Your task to perform on an android device: turn off improve location accuracy Image 0: 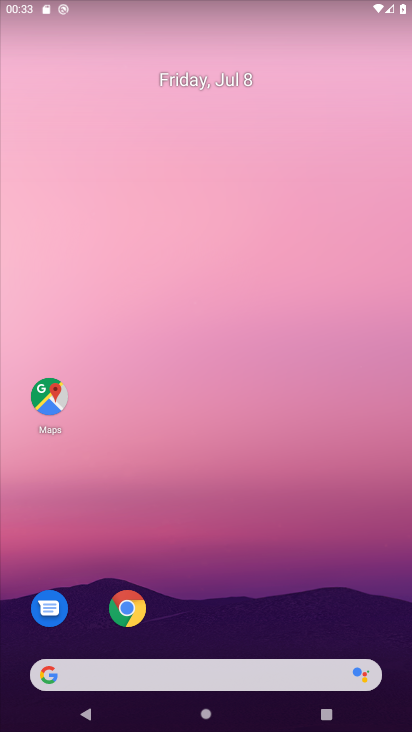
Step 0: click (243, 48)
Your task to perform on an android device: turn off improve location accuracy Image 1: 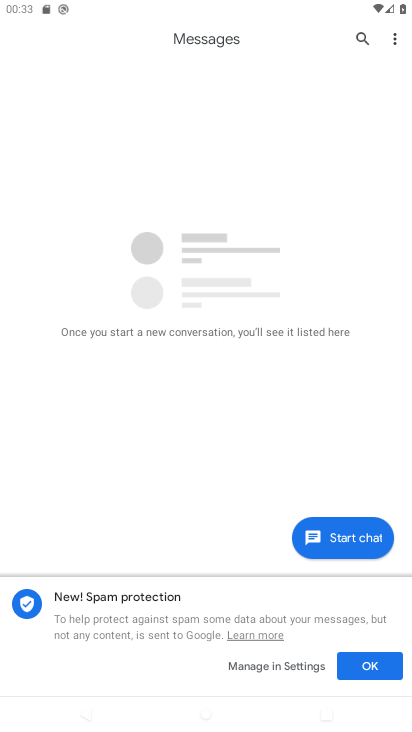
Step 1: press home button
Your task to perform on an android device: turn off improve location accuracy Image 2: 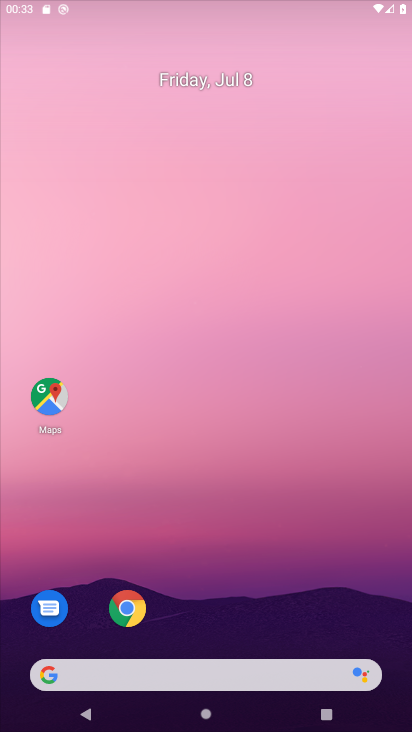
Step 2: drag from (182, 640) to (128, 210)
Your task to perform on an android device: turn off improve location accuracy Image 3: 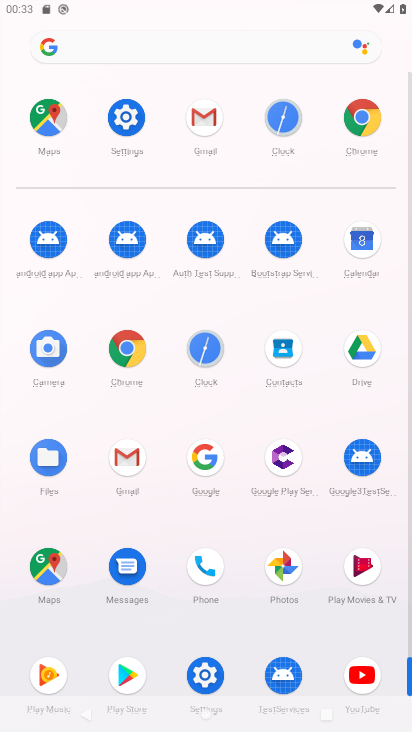
Step 3: click (137, 110)
Your task to perform on an android device: turn off improve location accuracy Image 4: 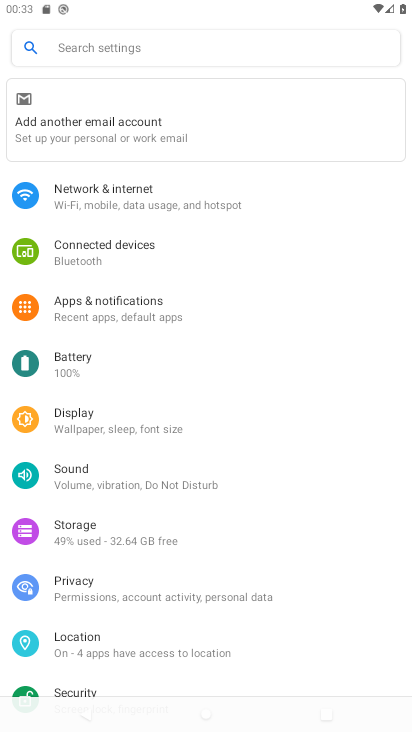
Step 4: click (150, 640)
Your task to perform on an android device: turn off improve location accuracy Image 5: 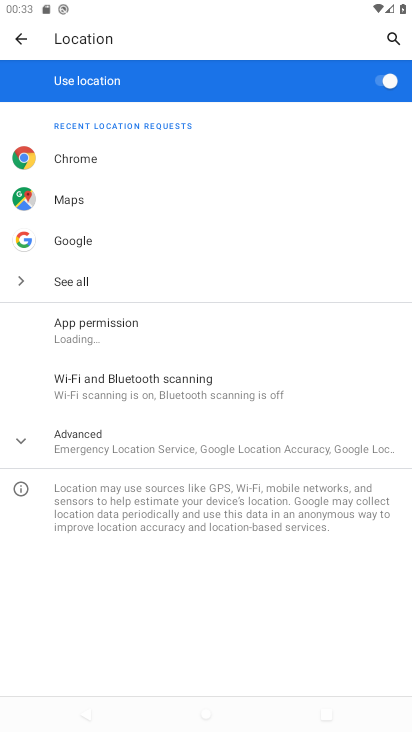
Step 5: click (137, 447)
Your task to perform on an android device: turn off improve location accuracy Image 6: 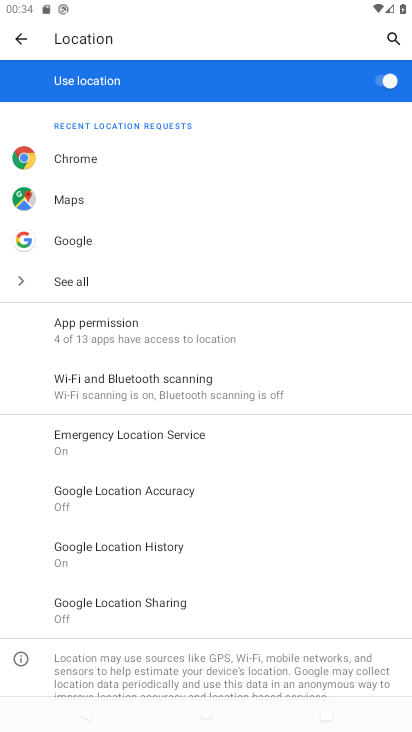
Step 6: click (162, 496)
Your task to perform on an android device: turn off improve location accuracy Image 7: 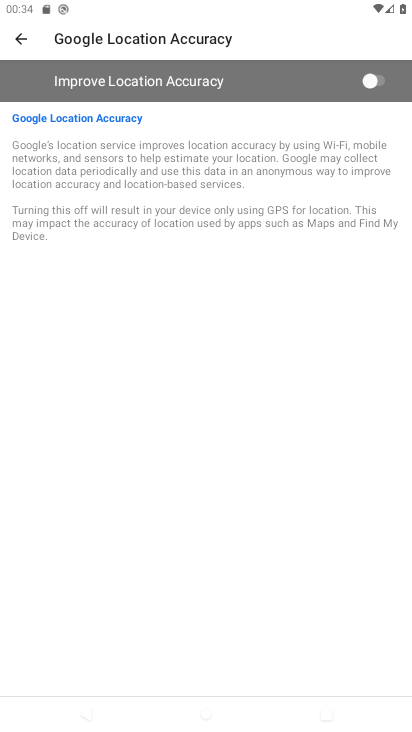
Step 7: task complete